Your task to perform on an android device: add a contact Image 0: 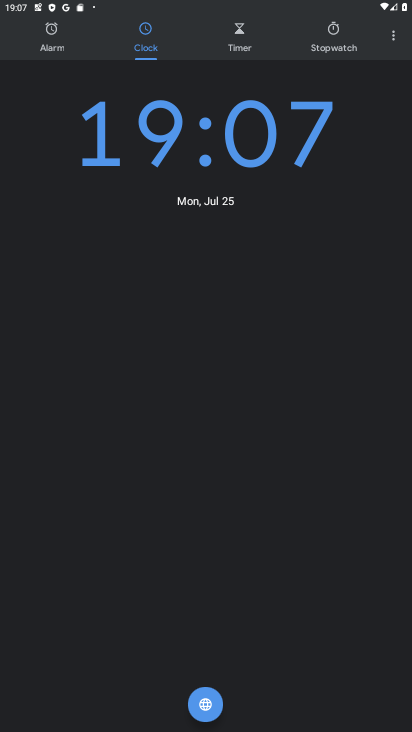
Step 0: press home button
Your task to perform on an android device: add a contact Image 1: 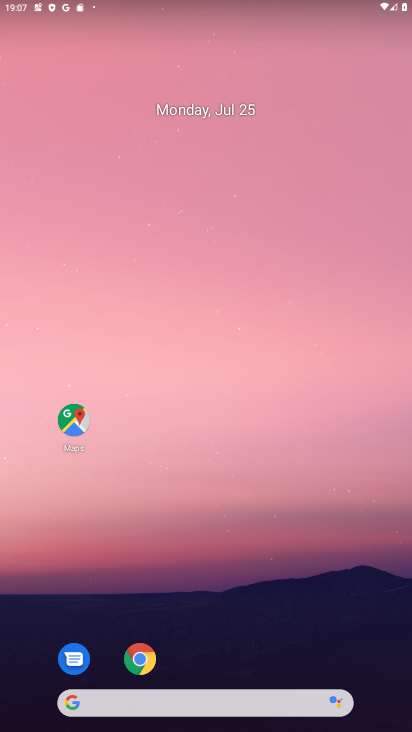
Step 1: drag from (202, 587) to (190, 101)
Your task to perform on an android device: add a contact Image 2: 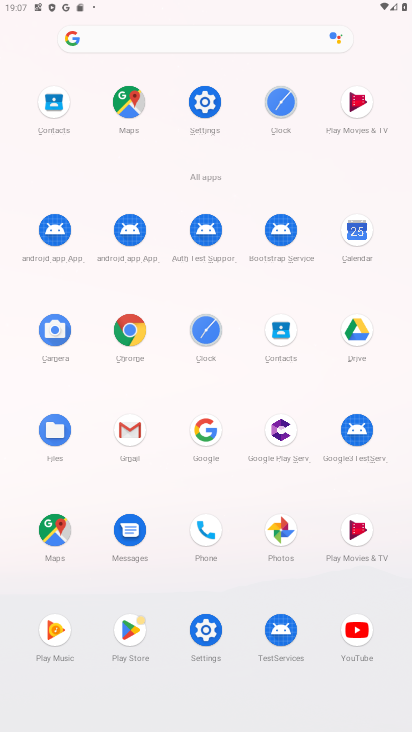
Step 2: click (280, 338)
Your task to perform on an android device: add a contact Image 3: 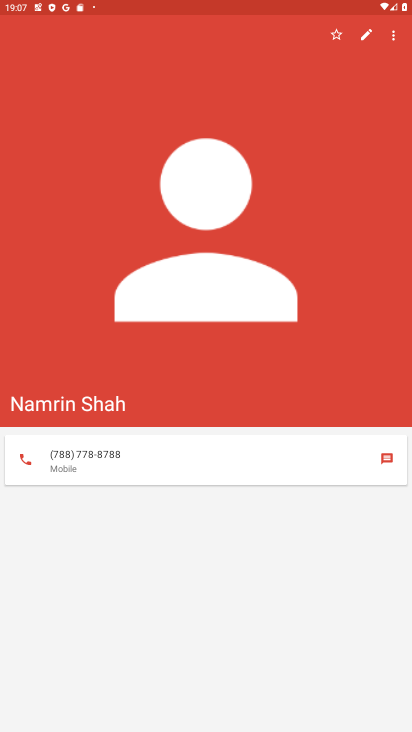
Step 3: press back button
Your task to perform on an android device: add a contact Image 4: 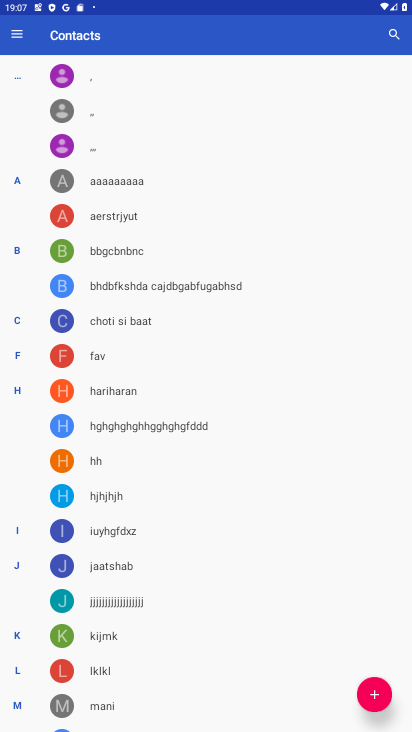
Step 4: click (375, 694)
Your task to perform on an android device: add a contact Image 5: 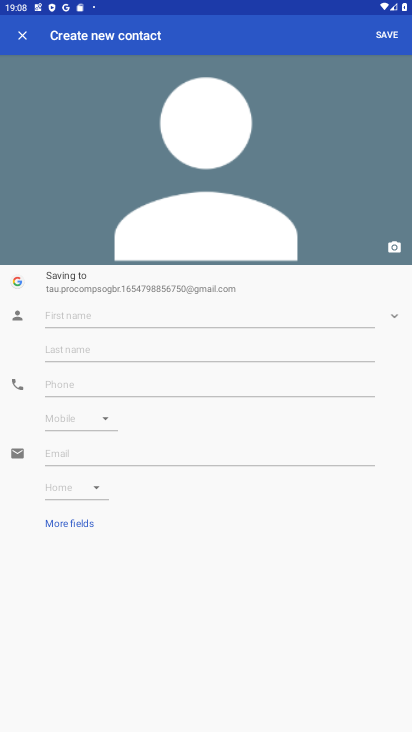
Step 5: click (97, 314)
Your task to perform on an android device: add a contact Image 6: 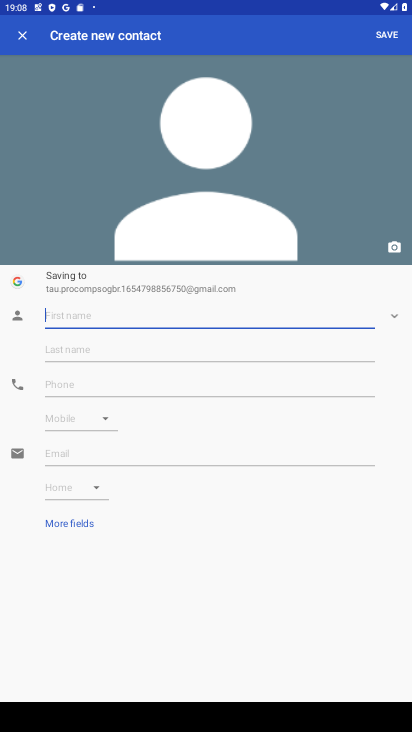
Step 6: type "Panikar"
Your task to perform on an android device: add a contact Image 7: 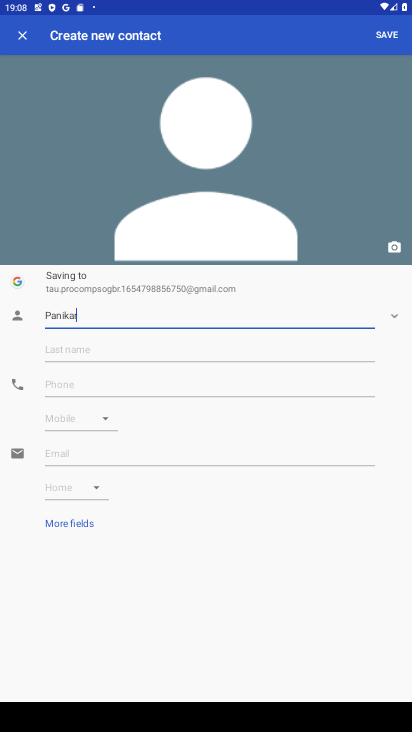
Step 7: click (174, 357)
Your task to perform on an android device: add a contact Image 8: 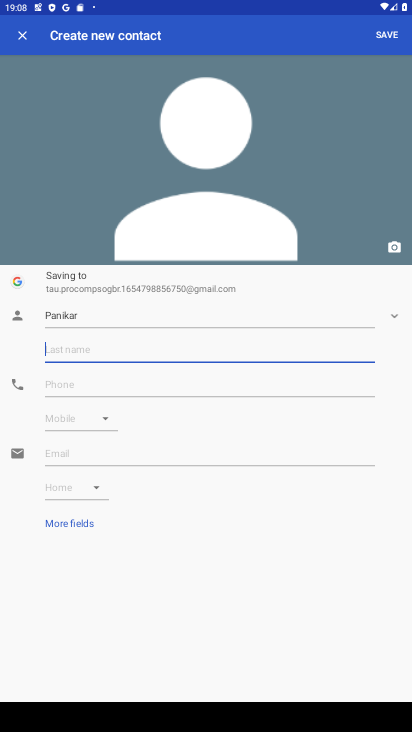
Step 8: type "shah"
Your task to perform on an android device: add a contact Image 9: 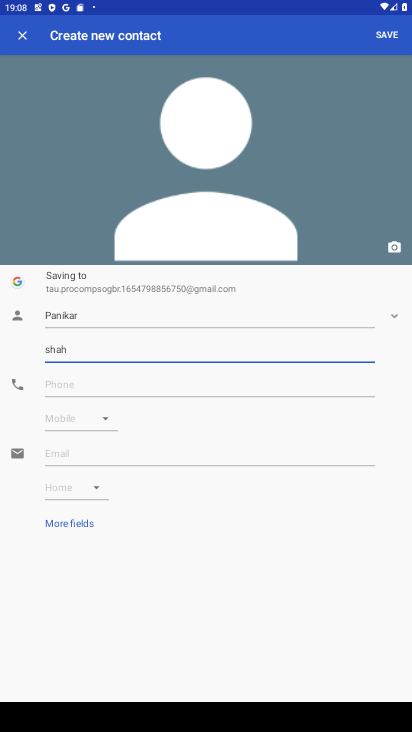
Step 9: click (136, 380)
Your task to perform on an android device: add a contact Image 10: 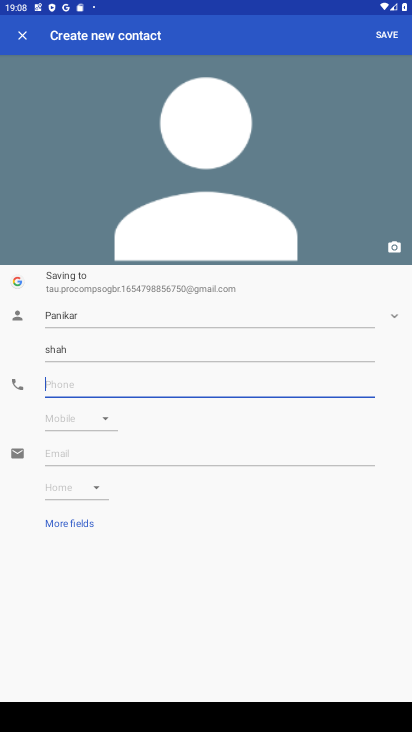
Step 10: type "7887788788"
Your task to perform on an android device: add a contact Image 11: 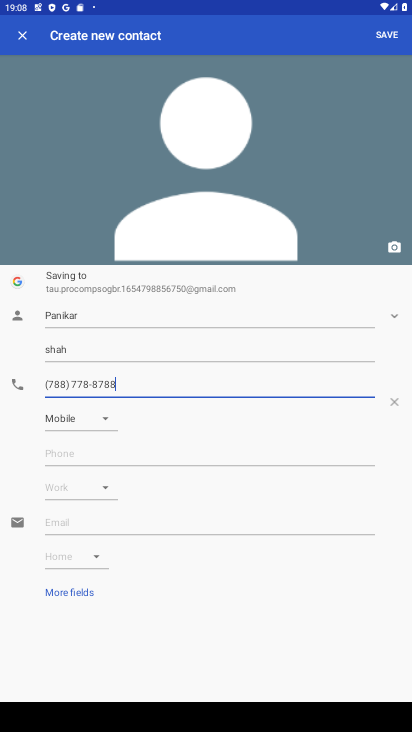
Step 11: click (390, 36)
Your task to perform on an android device: add a contact Image 12: 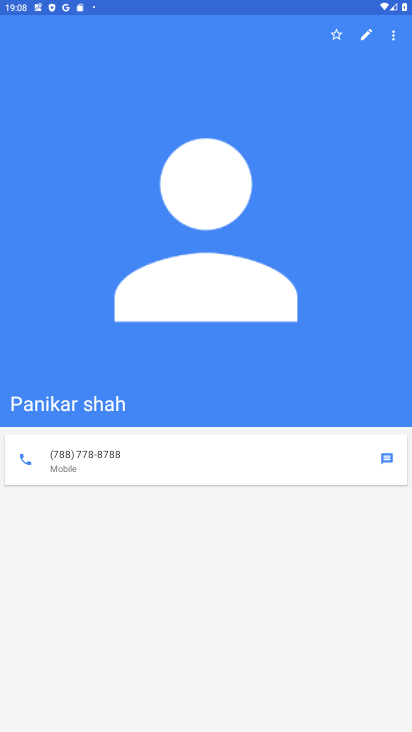
Step 12: task complete